Your task to perform on an android device: Check the weather Image 0: 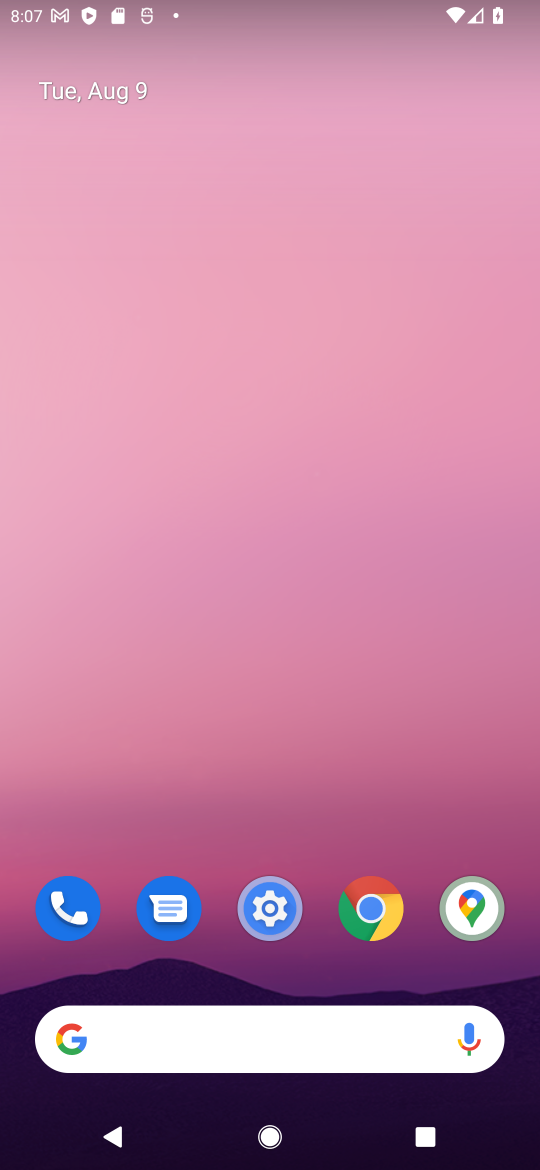
Step 0: drag from (285, 993) to (264, 135)
Your task to perform on an android device: Check the weather Image 1: 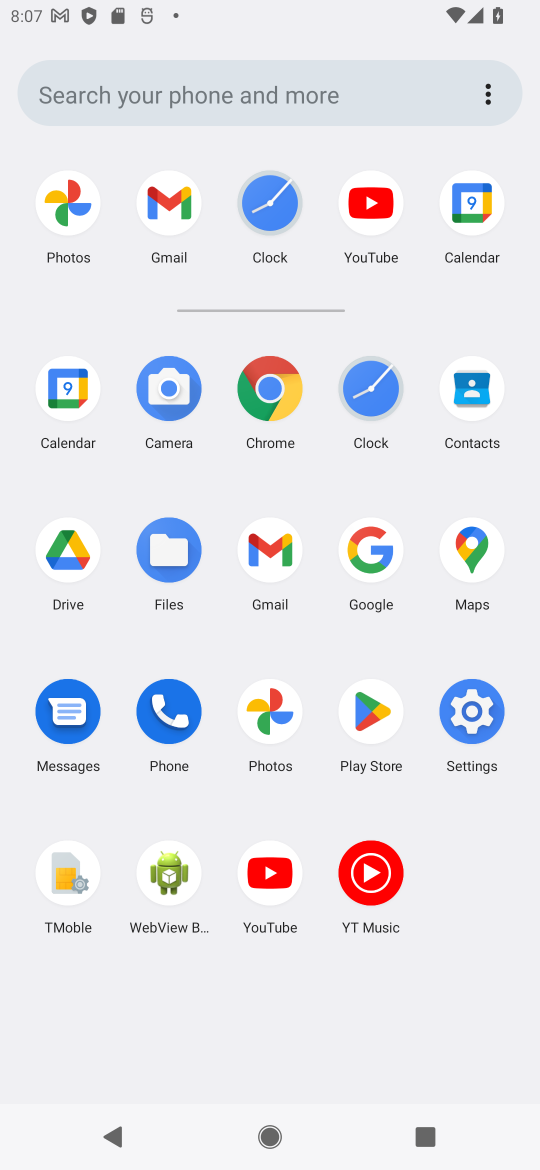
Step 1: click (371, 716)
Your task to perform on an android device: Check the weather Image 2: 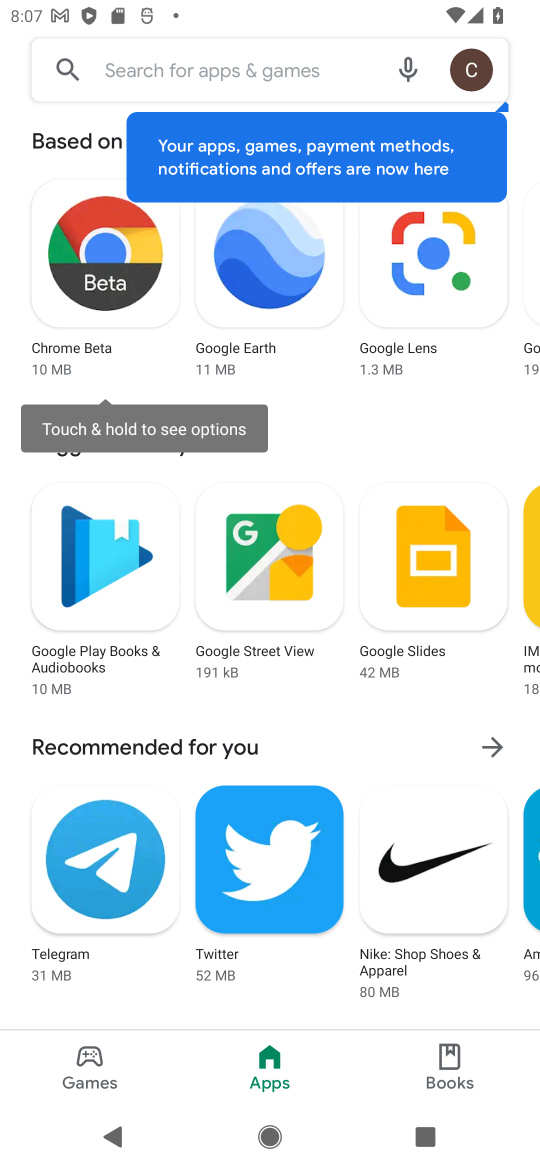
Step 2: press home button
Your task to perform on an android device: Check the weather Image 3: 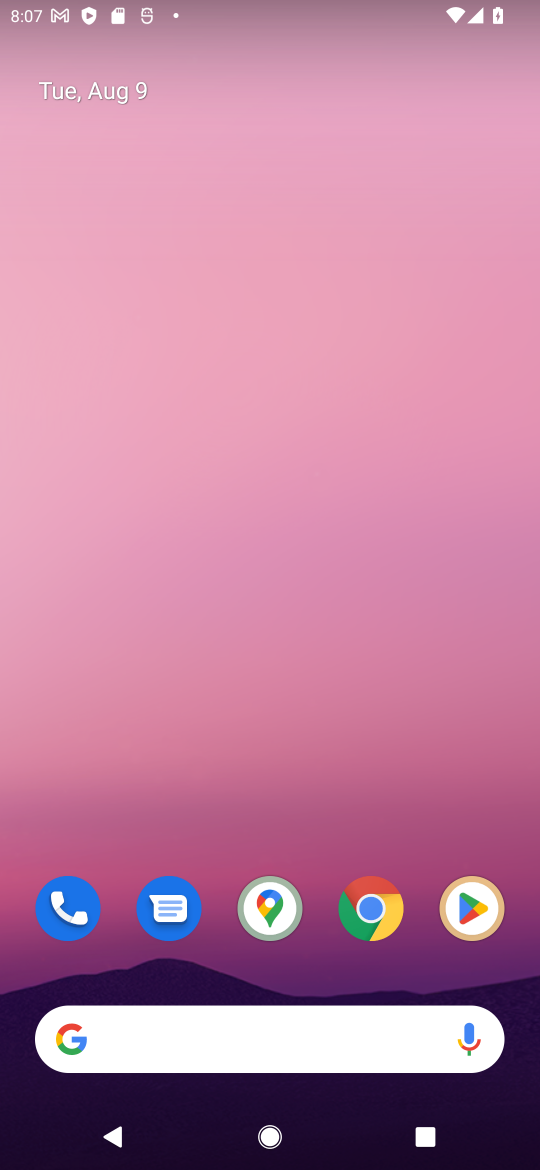
Step 3: drag from (294, 926) to (247, 355)
Your task to perform on an android device: Check the weather Image 4: 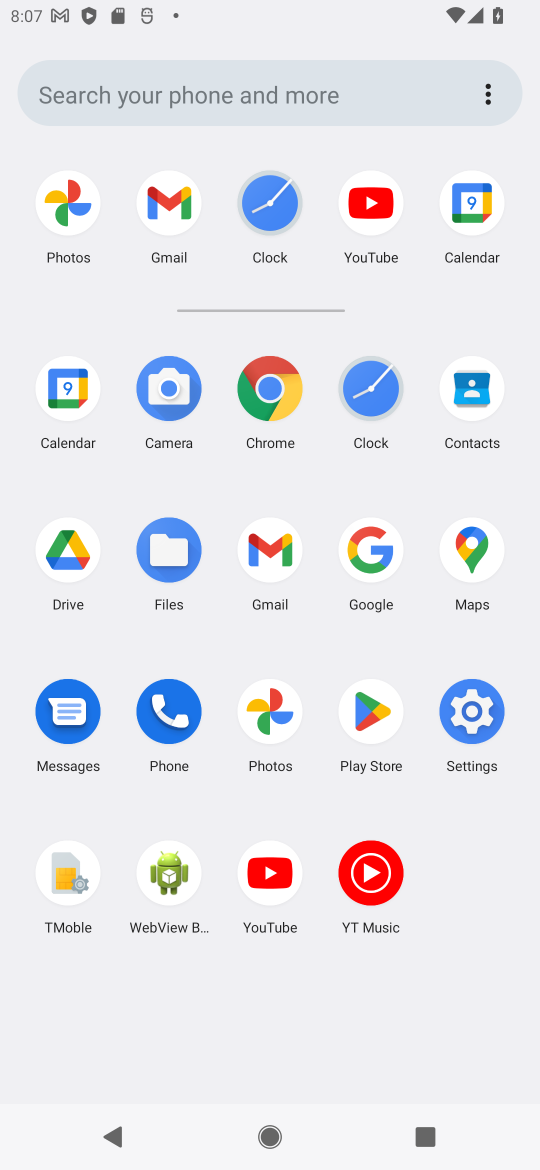
Step 4: click (376, 548)
Your task to perform on an android device: Check the weather Image 5: 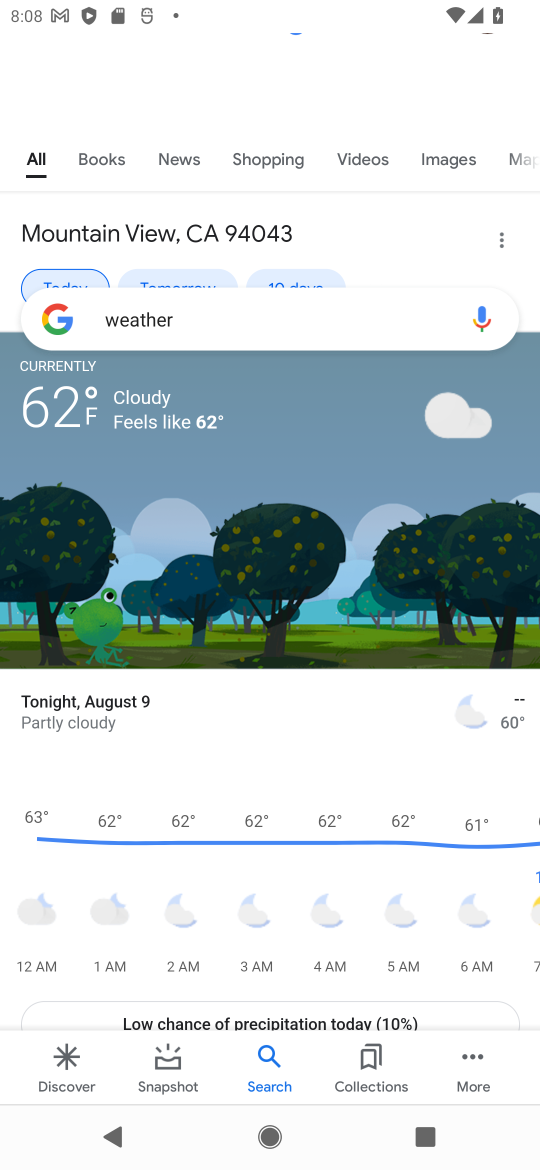
Step 5: click (61, 277)
Your task to perform on an android device: Check the weather Image 6: 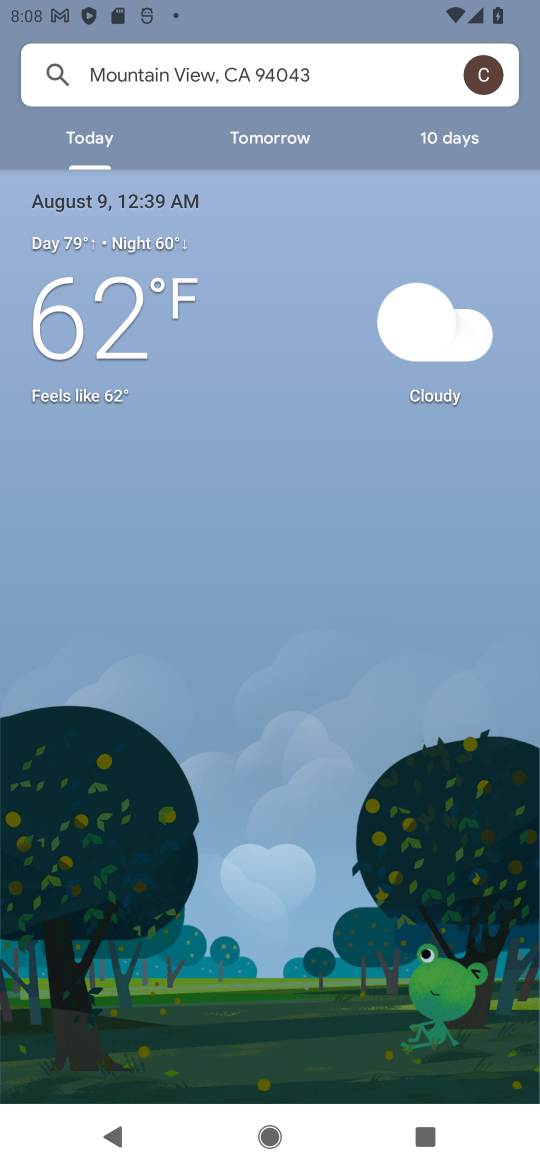
Step 6: task complete